Your task to perform on an android device: stop showing notifications on the lock screen Image 0: 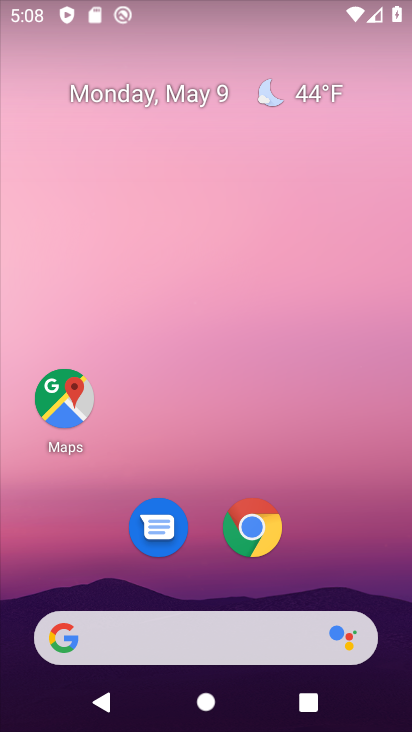
Step 0: drag from (333, 555) to (2, 46)
Your task to perform on an android device: stop showing notifications on the lock screen Image 1: 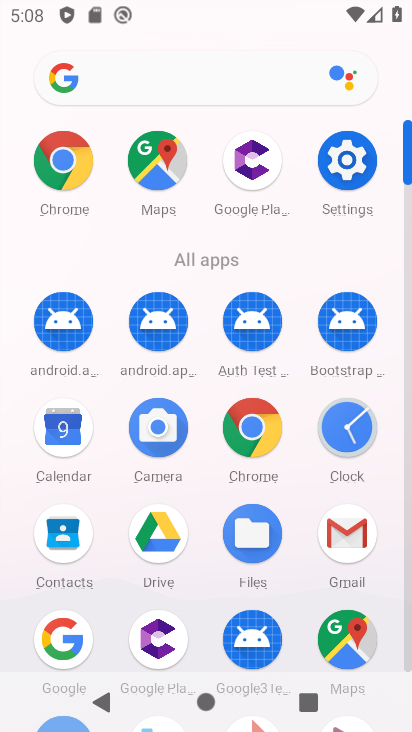
Step 1: drag from (11, 526) to (11, 203)
Your task to perform on an android device: stop showing notifications on the lock screen Image 2: 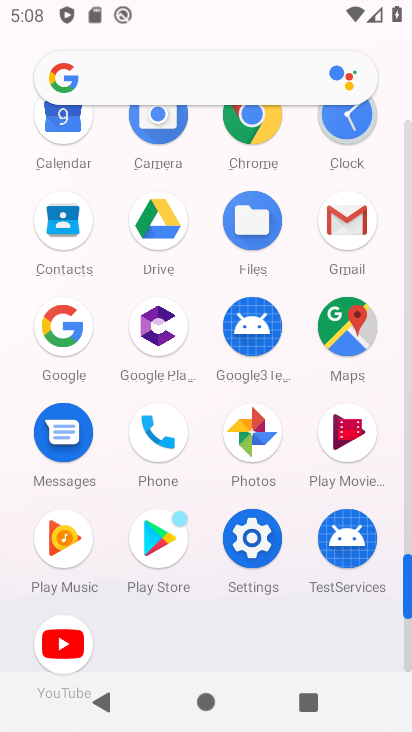
Step 2: click (257, 531)
Your task to perform on an android device: stop showing notifications on the lock screen Image 3: 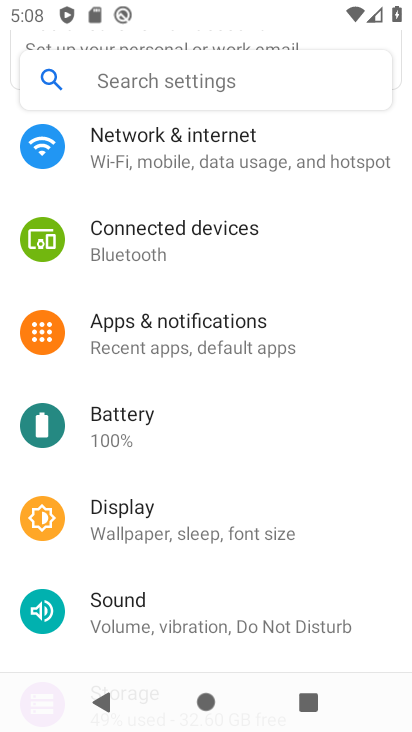
Step 3: drag from (304, 189) to (293, 471)
Your task to perform on an android device: stop showing notifications on the lock screen Image 4: 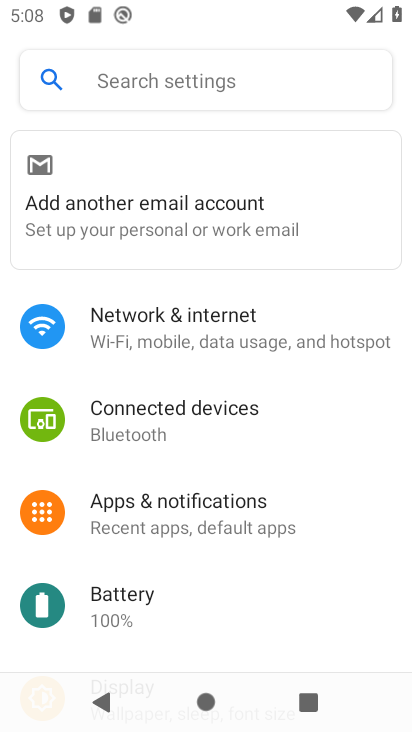
Step 4: click (189, 522)
Your task to perform on an android device: stop showing notifications on the lock screen Image 5: 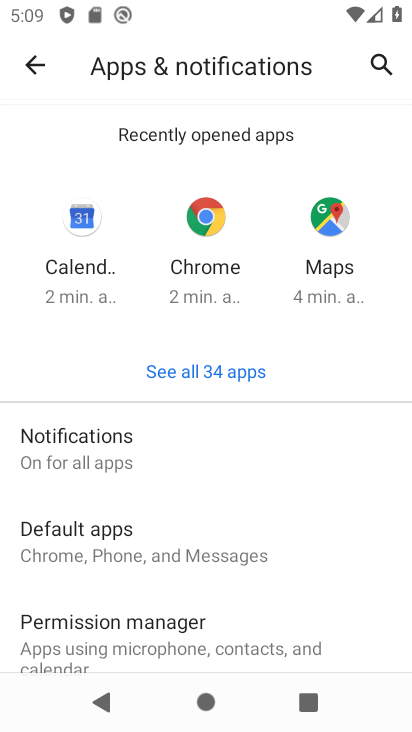
Step 5: drag from (265, 487) to (268, 177)
Your task to perform on an android device: stop showing notifications on the lock screen Image 6: 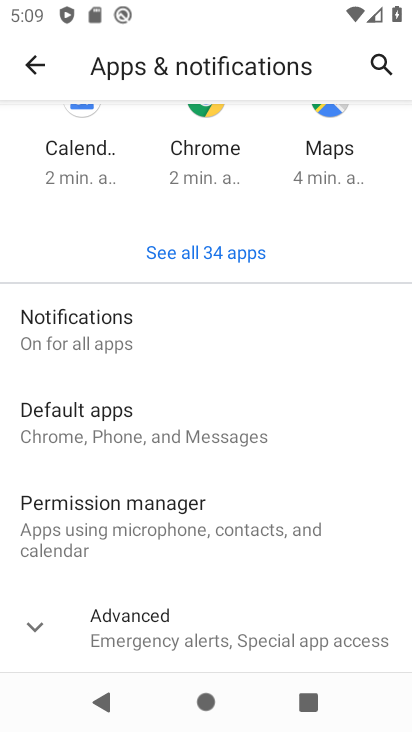
Step 6: click (115, 321)
Your task to perform on an android device: stop showing notifications on the lock screen Image 7: 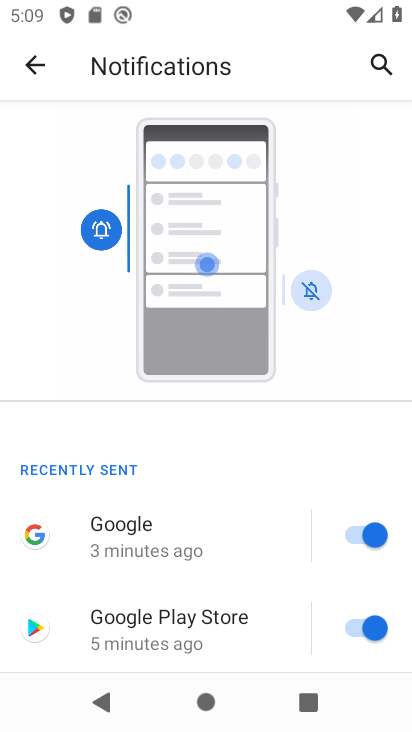
Step 7: drag from (285, 576) to (277, 166)
Your task to perform on an android device: stop showing notifications on the lock screen Image 8: 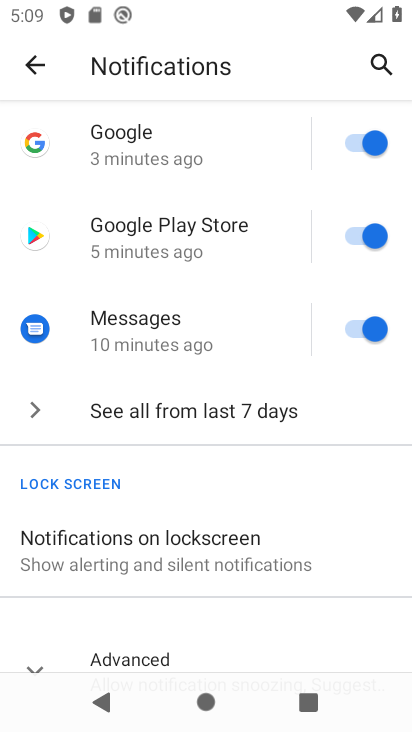
Step 8: drag from (221, 597) to (254, 155)
Your task to perform on an android device: stop showing notifications on the lock screen Image 9: 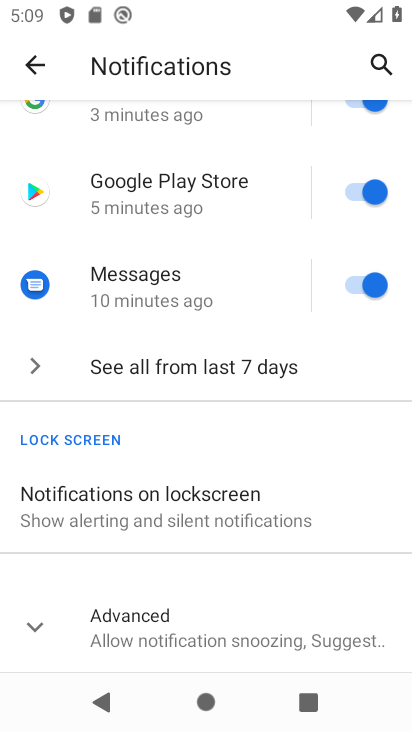
Step 9: click (41, 640)
Your task to perform on an android device: stop showing notifications on the lock screen Image 10: 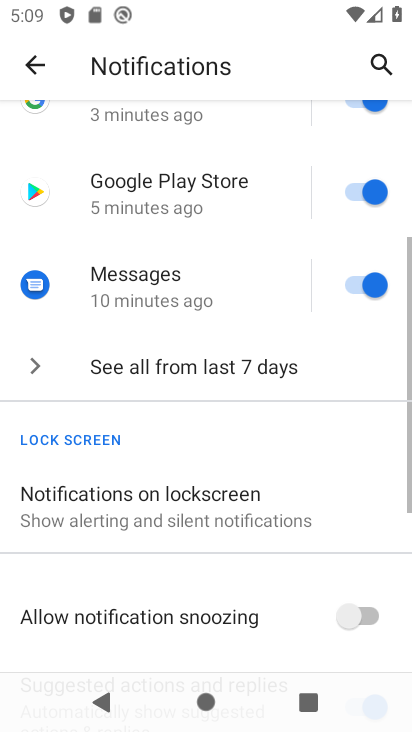
Step 10: drag from (249, 572) to (252, 224)
Your task to perform on an android device: stop showing notifications on the lock screen Image 11: 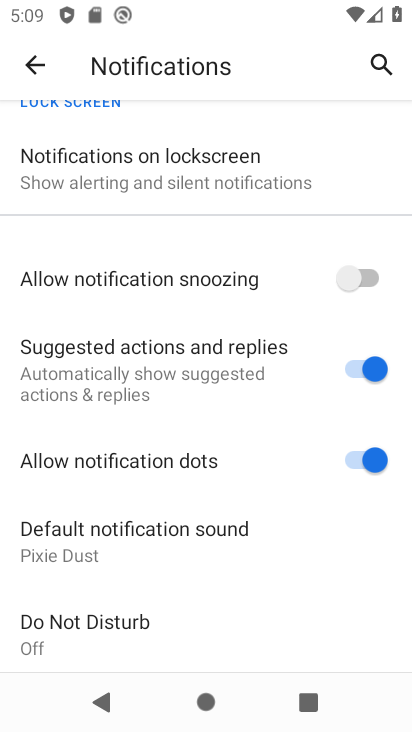
Step 11: click (190, 169)
Your task to perform on an android device: stop showing notifications on the lock screen Image 12: 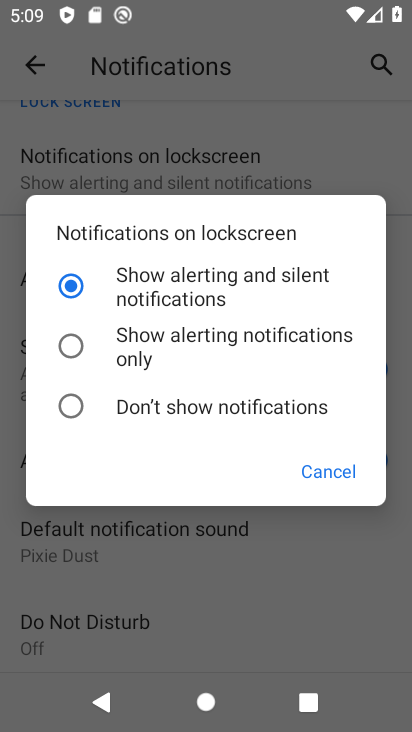
Step 12: click (119, 394)
Your task to perform on an android device: stop showing notifications on the lock screen Image 13: 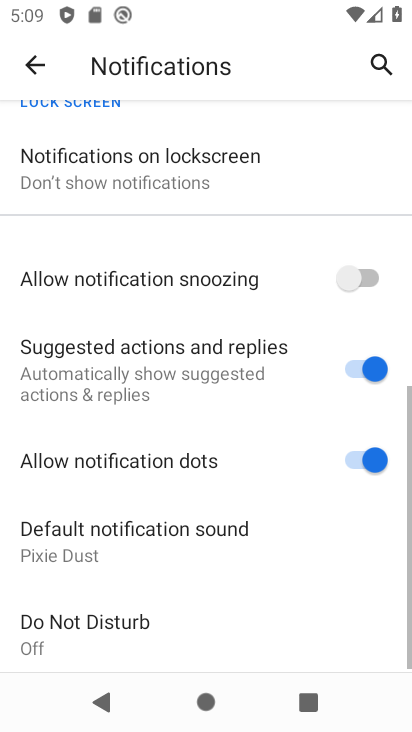
Step 13: task complete